Your task to perform on an android device: Find coffee shops on Maps Image 0: 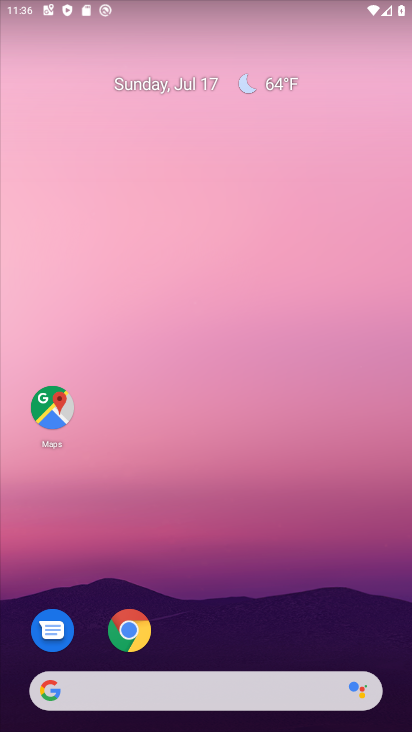
Step 0: click (48, 410)
Your task to perform on an android device: Find coffee shops on Maps Image 1: 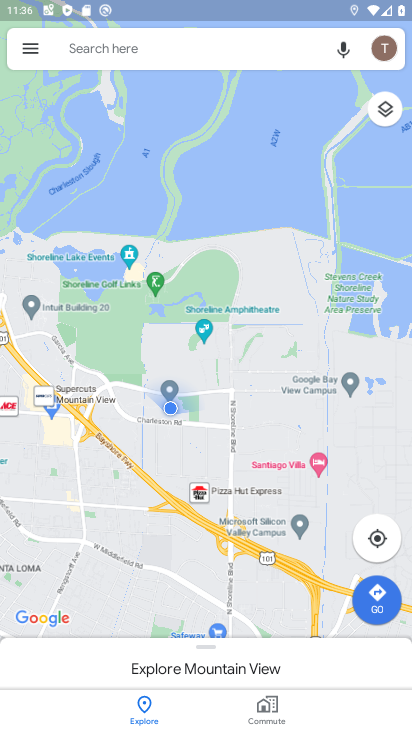
Step 1: click (101, 45)
Your task to perform on an android device: Find coffee shops on Maps Image 2: 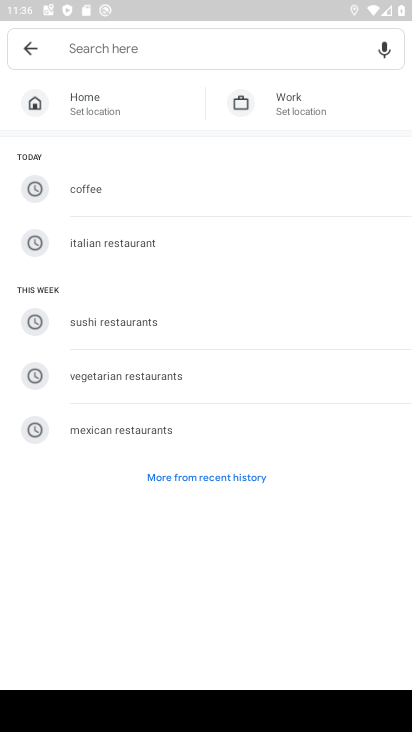
Step 2: type "coffee shop"
Your task to perform on an android device: Find coffee shops on Maps Image 3: 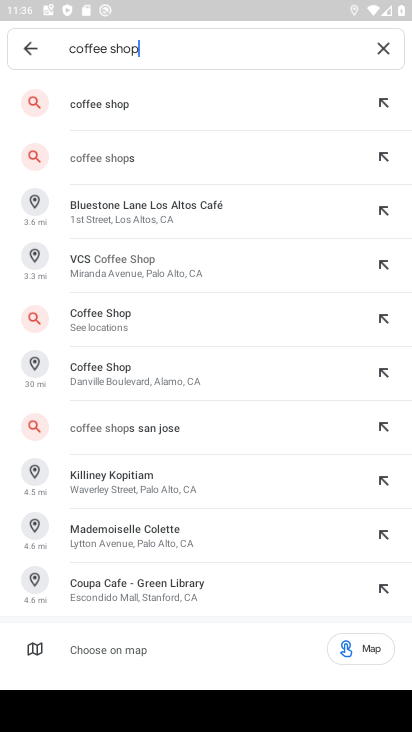
Step 3: click (101, 115)
Your task to perform on an android device: Find coffee shops on Maps Image 4: 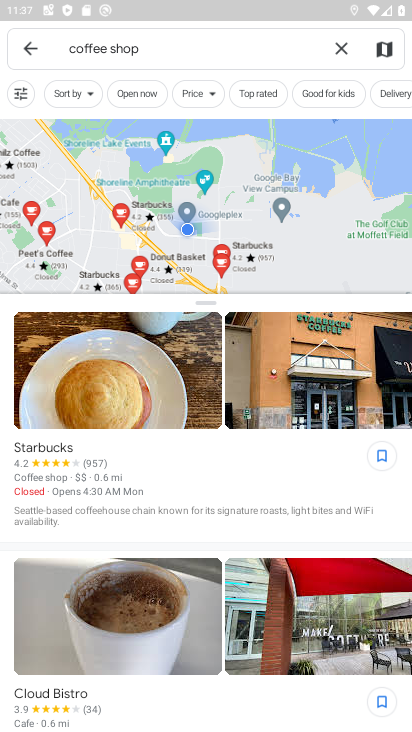
Step 4: task complete